Your task to perform on an android device: toggle pop-ups in chrome Image 0: 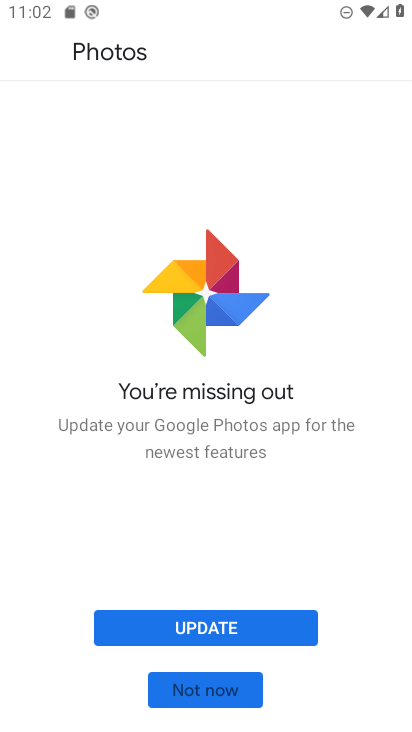
Step 0: press home button
Your task to perform on an android device: toggle pop-ups in chrome Image 1: 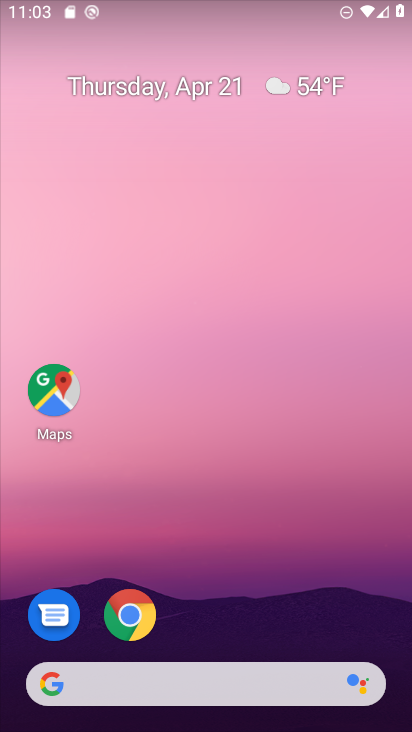
Step 1: click (121, 596)
Your task to perform on an android device: toggle pop-ups in chrome Image 2: 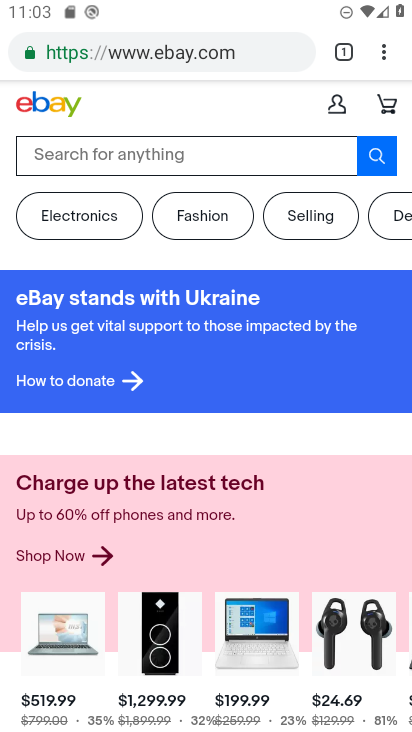
Step 2: click (387, 49)
Your task to perform on an android device: toggle pop-ups in chrome Image 3: 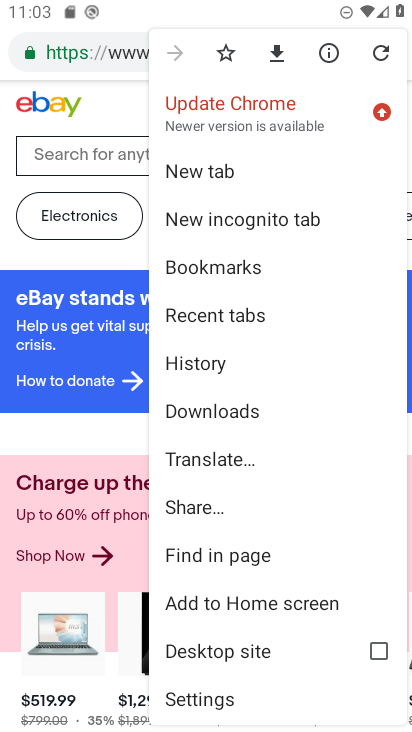
Step 3: click (252, 696)
Your task to perform on an android device: toggle pop-ups in chrome Image 4: 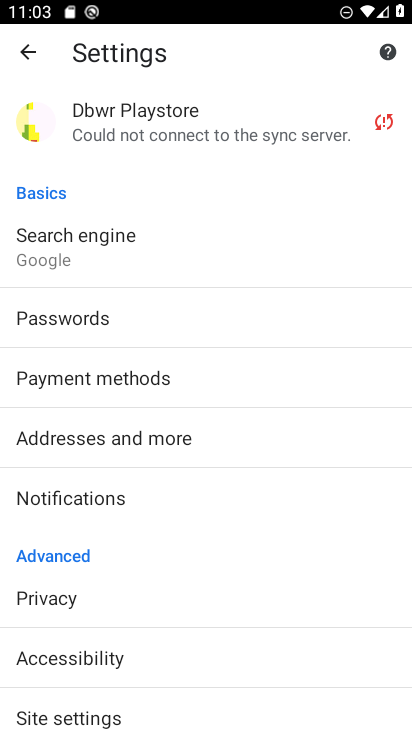
Step 4: click (133, 714)
Your task to perform on an android device: toggle pop-ups in chrome Image 5: 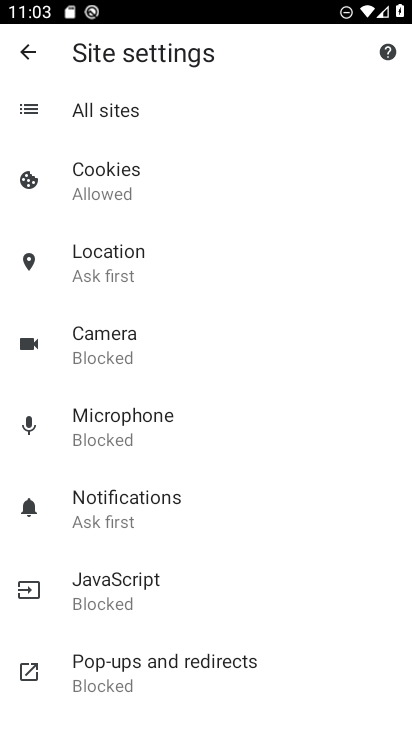
Step 5: click (139, 654)
Your task to perform on an android device: toggle pop-ups in chrome Image 6: 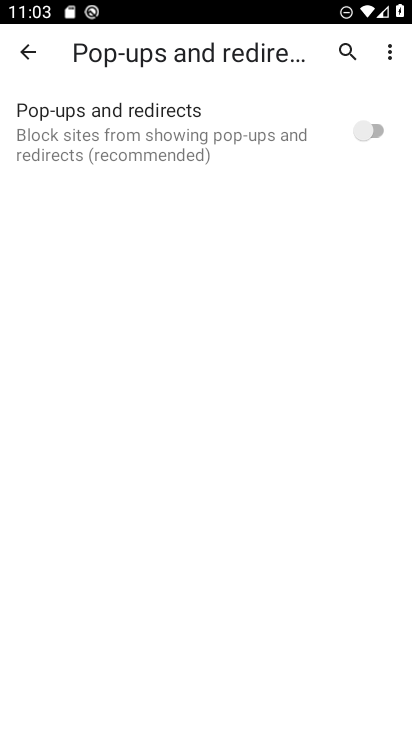
Step 6: click (358, 133)
Your task to perform on an android device: toggle pop-ups in chrome Image 7: 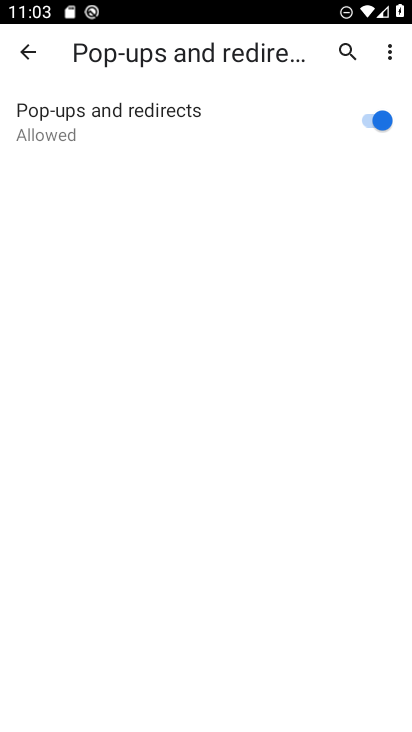
Step 7: task complete